Your task to perform on an android device: View the shopping cart on ebay.com. Search for "macbook pro 15 inch" on ebay.com, select the first entry, and add it to the cart. Image 0: 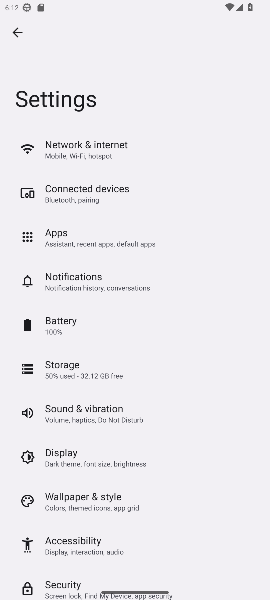
Step 0: press home button
Your task to perform on an android device: View the shopping cart on ebay.com. Search for "macbook pro 15 inch" on ebay.com, select the first entry, and add it to the cart. Image 1: 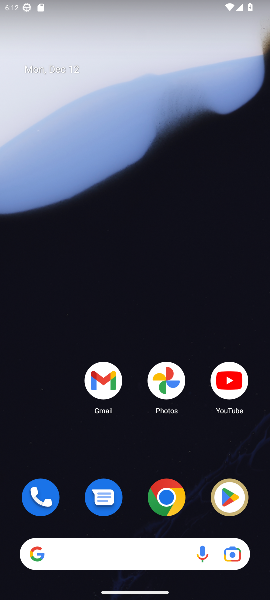
Step 1: click (54, 557)
Your task to perform on an android device: View the shopping cart on ebay.com. Search for "macbook pro 15 inch" on ebay.com, select the first entry, and add it to the cart. Image 2: 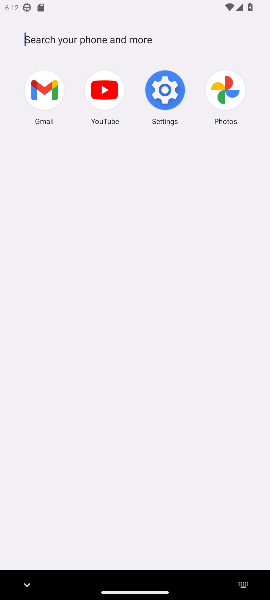
Step 2: press home button
Your task to perform on an android device: View the shopping cart on ebay.com. Search for "macbook pro 15 inch" on ebay.com, select the first entry, and add it to the cart. Image 3: 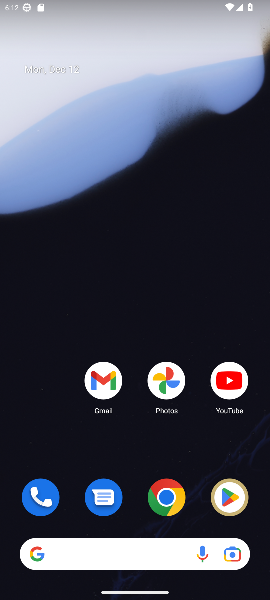
Step 3: drag from (69, 455) to (58, 57)
Your task to perform on an android device: View the shopping cart on ebay.com. Search for "macbook pro 15 inch" on ebay.com, select the first entry, and add it to the cart. Image 4: 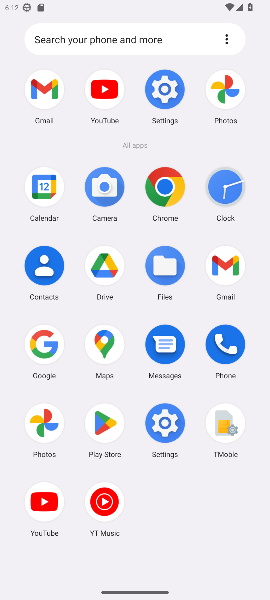
Step 4: click (31, 354)
Your task to perform on an android device: View the shopping cart on ebay.com. Search for "macbook pro 15 inch" on ebay.com, select the first entry, and add it to the cart. Image 5: 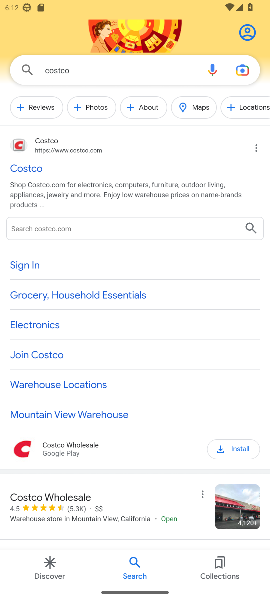
Step 5: press back button
Your task to perform on an android device: View the shopping cart on ebay.com. Search for "macbook pro 15 inch" on ebay.com, select the first entry, and add it to the cart. Image 6: 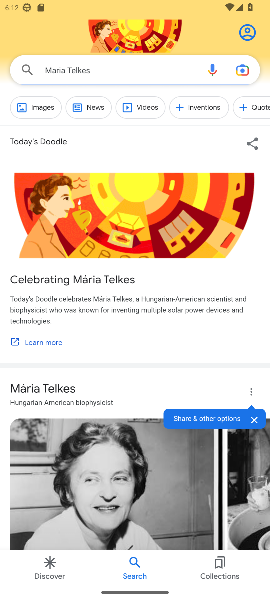
Step 6: press back button
Your task to perform on an android device: View the shopping cart on ebay.com. Search for "macbook pro 15 inch" on ebay.com, select the first entry, and add it to the cart. Image 7: 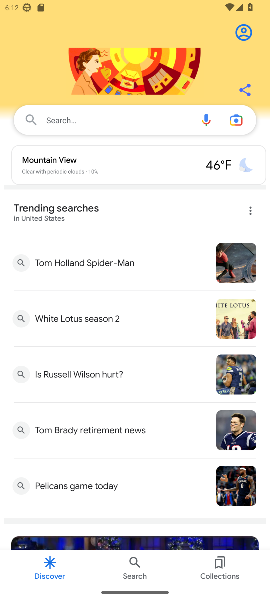
Step 7: click (85, 112)
Your task to perform on an android device: View the shopping cart on ebay.com. Search for "macbook pro 15 inch" on ebay.com, select the first entry, and add it to the cart. Image 8: 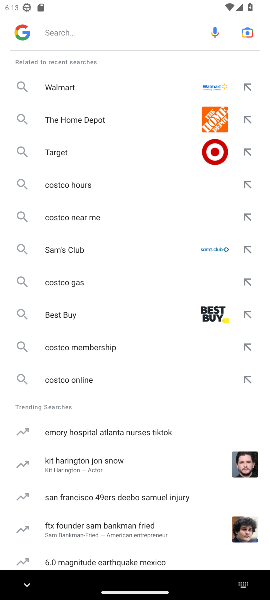
Step 8: type "ebay.com"
Your task to perform on an android device: View the shopping cart on ebay.com. Search for "macbook pro 15 inch" on ebay.com, select the first entry, and add it to the cart. Image 9: 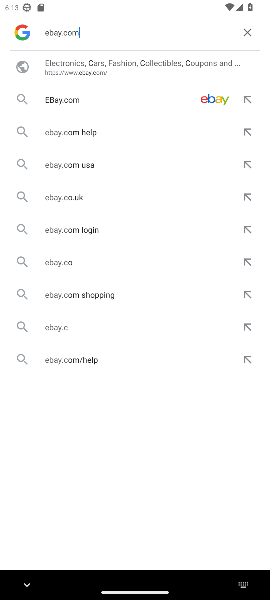
Step 9: press enter
Your task to perform on an android device: View the shopping cart on ebay.com. Search for "macbook pro 15 inch" on ebay.com, select the first entry, and add it to the cart. Image 10: 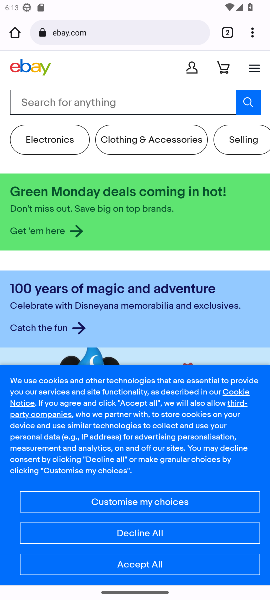
Step 10: click (224, 71)
Your task to perform on an android device: View the shopping cart on ebay.com. Search for "macbook pro 15 inch" on ebay.com, select the first entry, and add it to the cart. Image 11: 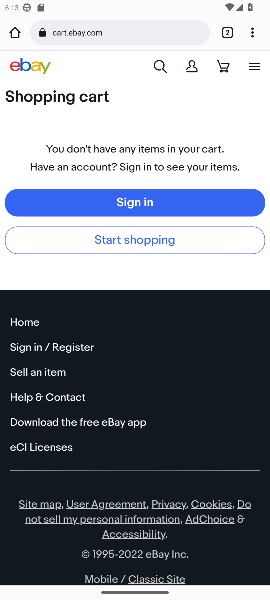
Step 11: click (159, 65)
Your task to perform on an android device: View the shopping cart on ebay.com. Search for "macbook pro 15 inch" on ebay.com, select the first entry, and add it to the cart. Image 12: 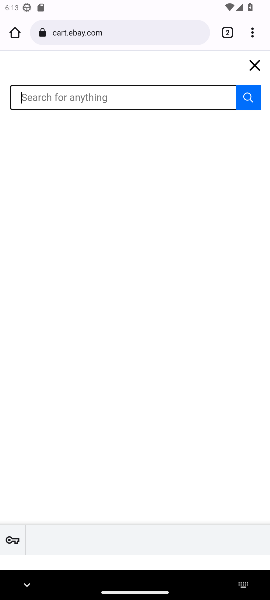
Step 12: type "macbook pro 15"
Your task to perform on an android device: View the shopping cart on ebay.com. Search for "macbook pro 15 inch" on ebay.com, select the first entry, and add it to the cart. Image 13: 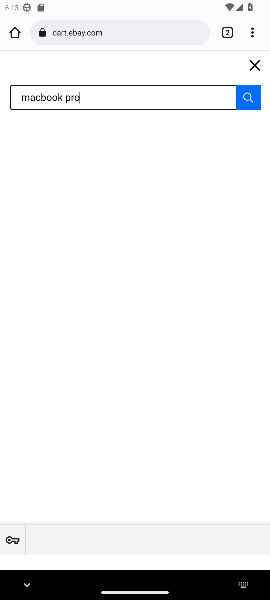
Step 13: press enter
Your task to perform on an android device: View the shopping cart on ebay.com. Search for "macbook pro 15 inch" on ebay.com, select the first entry, and add it to the cart. Image 14: 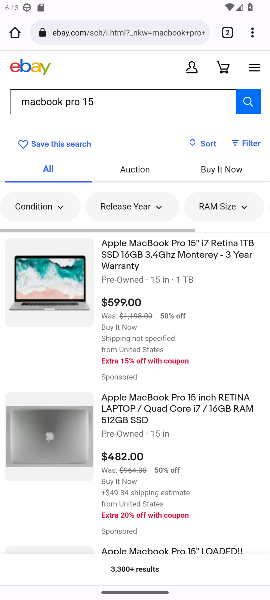
Step 14: click (128, 285)
Your task to perform on an android device: View the shopping cart on ebay.com. Search for "macbook pro 15 inch" on ebay.com, select the first entry, and add it to the cart. Image 15: 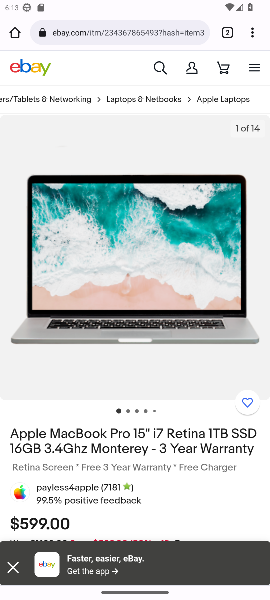
Step 15: drag from (185, 497) to (182, 201)
Your task to perform on an android device: View the shopping cart on ebay.com. Search for "macbook pro 15 inch" on ebay.com, select the first entry, and add it to the cart. Image 16: 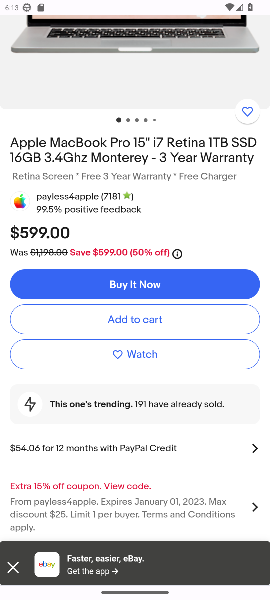
Step 16: click (101, 316)
Your task to perform on an android device: View the shopping cart on ebay.com. Search for "macbook pro 15 inch" on ebay.com, select the first entry, and add it to the cart. Image 17: 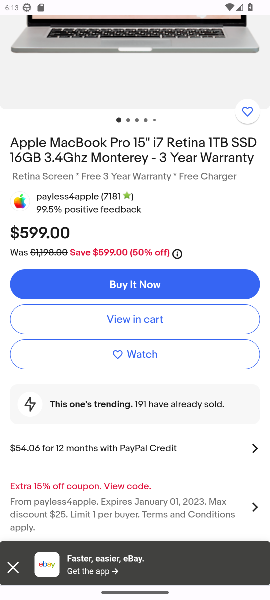
Step 17: task complete